Your task to perform on an android device: Open sound settings Image 0: 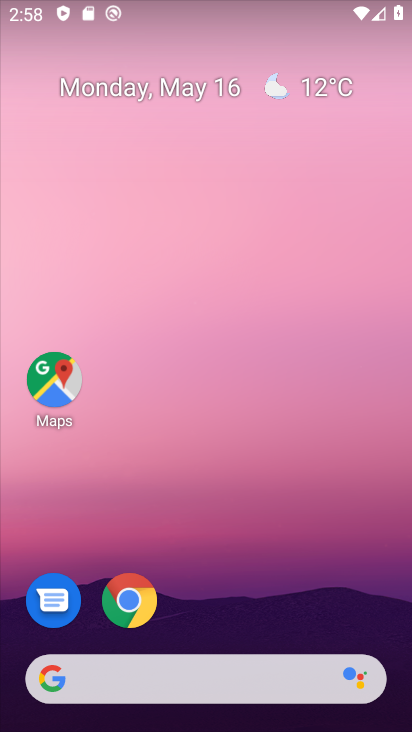
Step 0: drag from (229, 577) to (335, 33)
Your task to perform on an android device: Open sound settings Image 1: 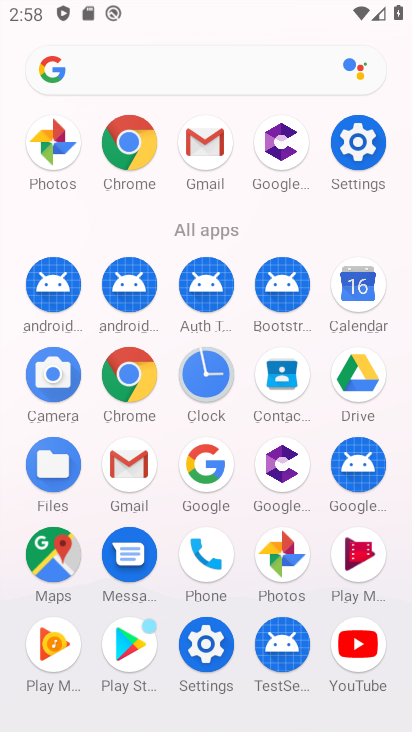
Step 1: click (359, 208)
Your task to perform on an android device: Open sound settings Image 2: 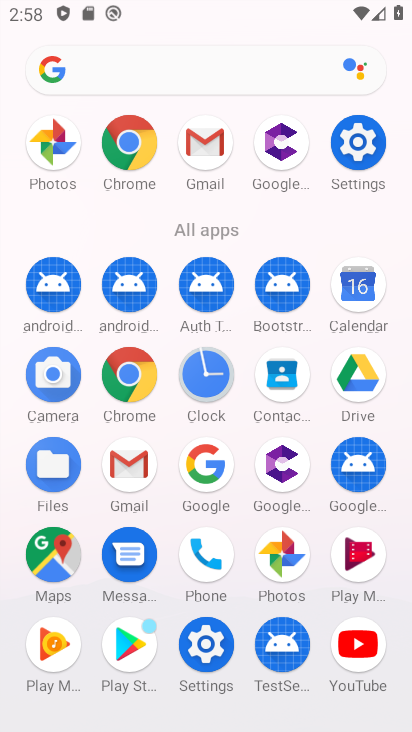
Step 2: click (360, 120)
Your task to perform on an android device: Open sound settings Image 3: 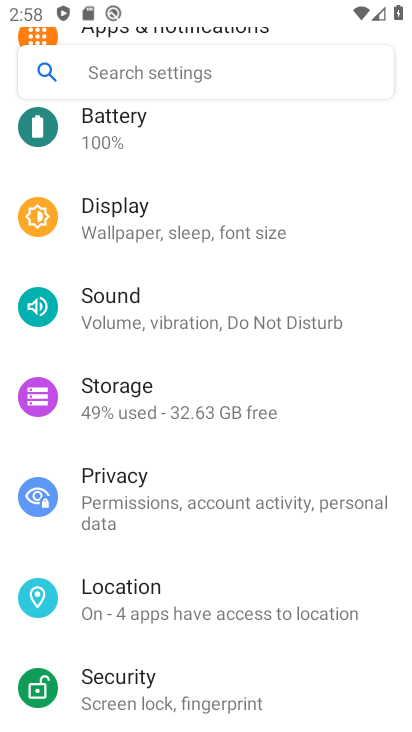
Step 3: click (135, 303)
Your task to perform on an android device: Open sound settings Image 4: 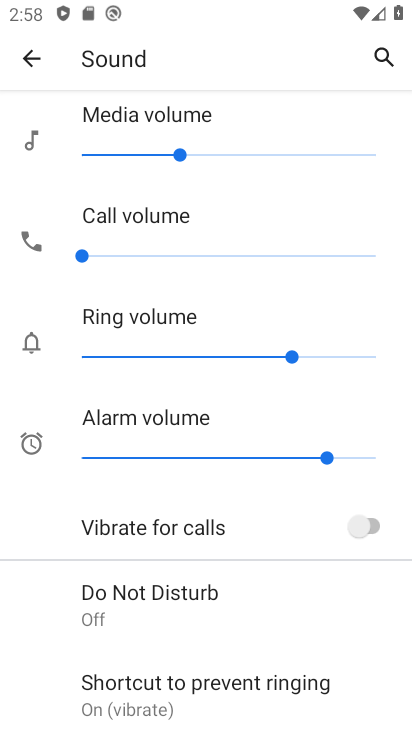
Step 4: task complete